Your task to perform on an android device: How much does the new iPad cost? Image 0: 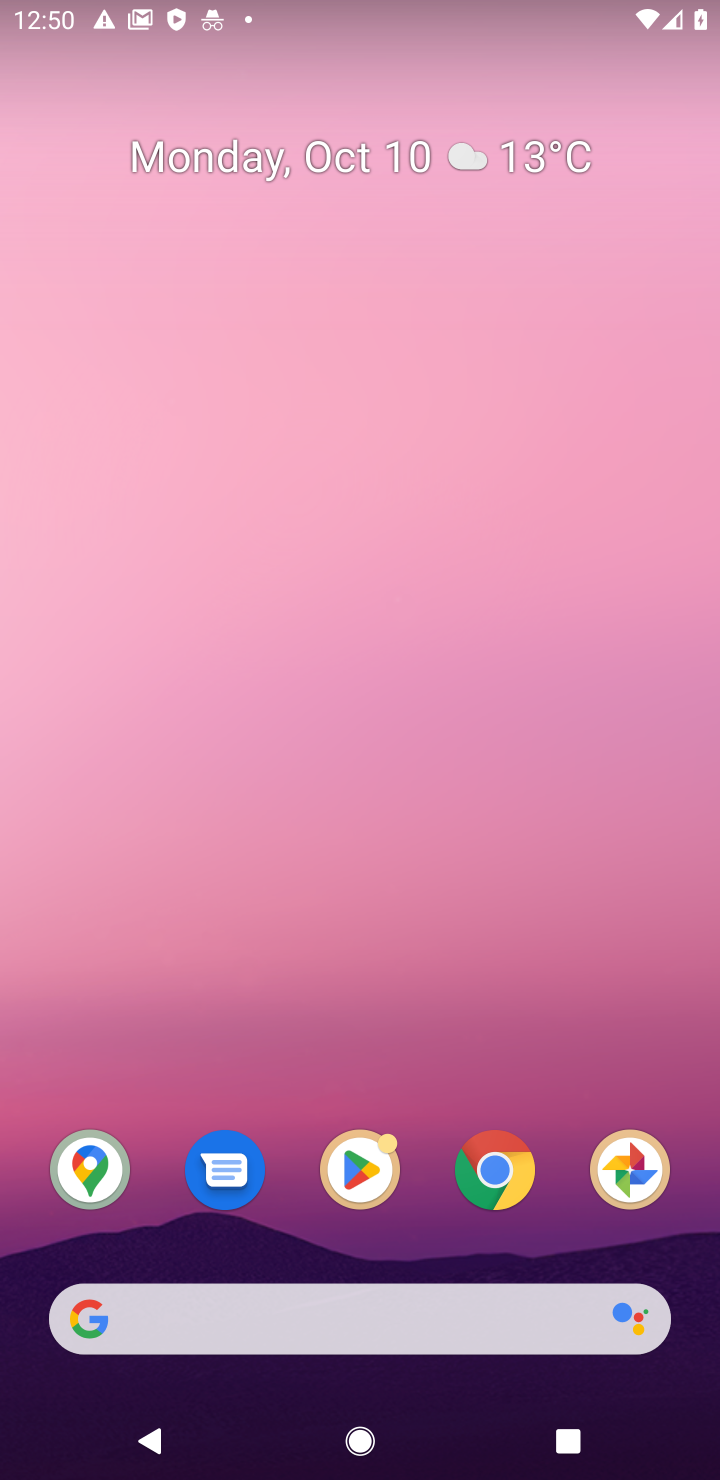
Step 0: click (500, 1175)
Your task to perform on an android device: How much does the new iPad cost? Image 1: 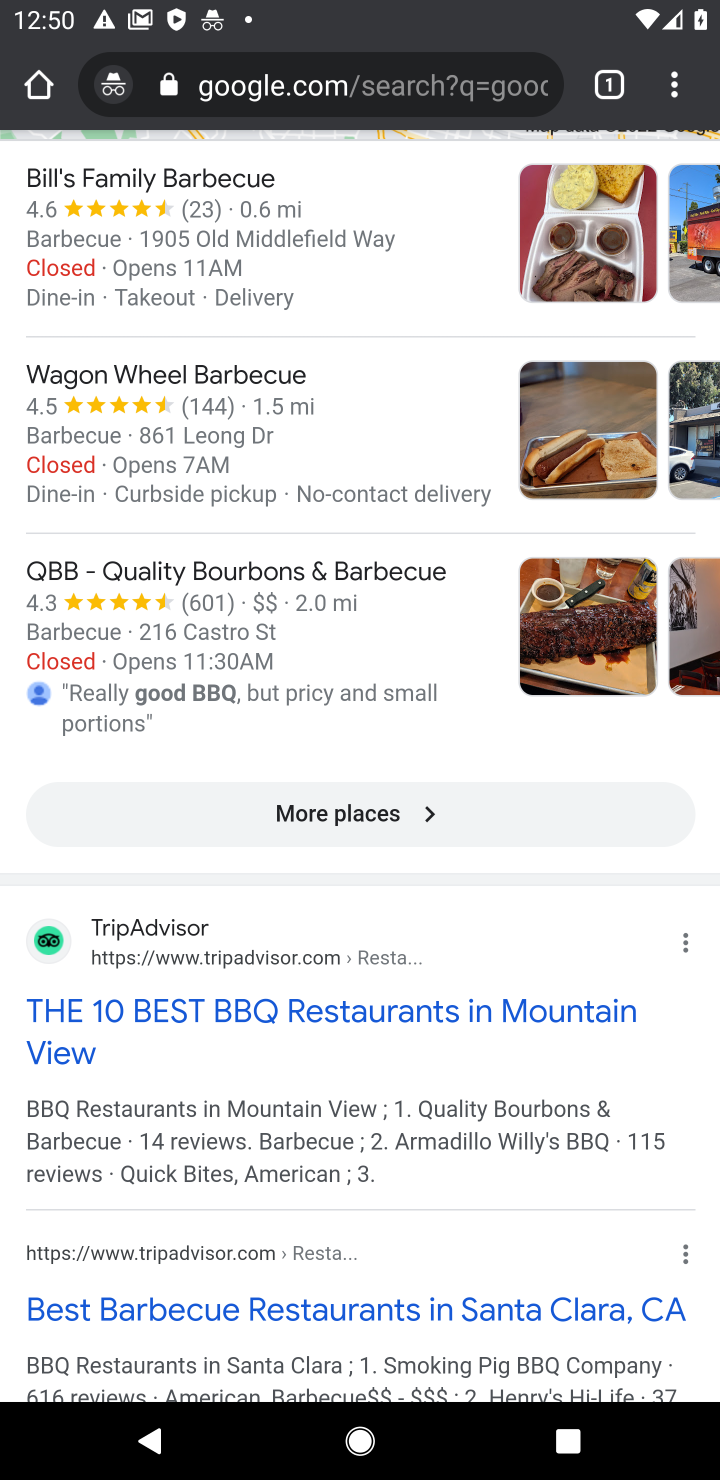
Step 1: click (335, 87)
Your task to perform on an android device: How much does the new iPad cost? Image 2: 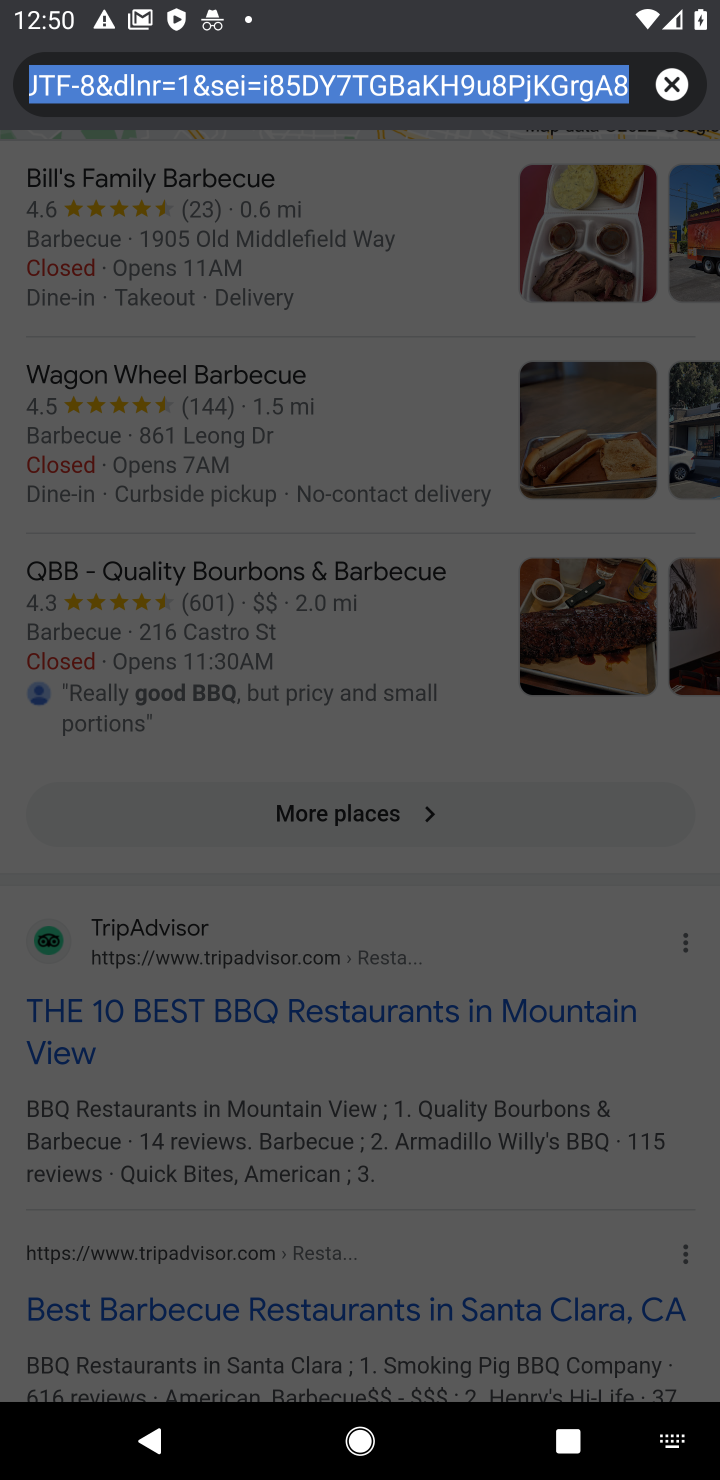
Step 2: click (671, 84)
Your task to perform on an android device: How much does the new iPad cost? Image 3: 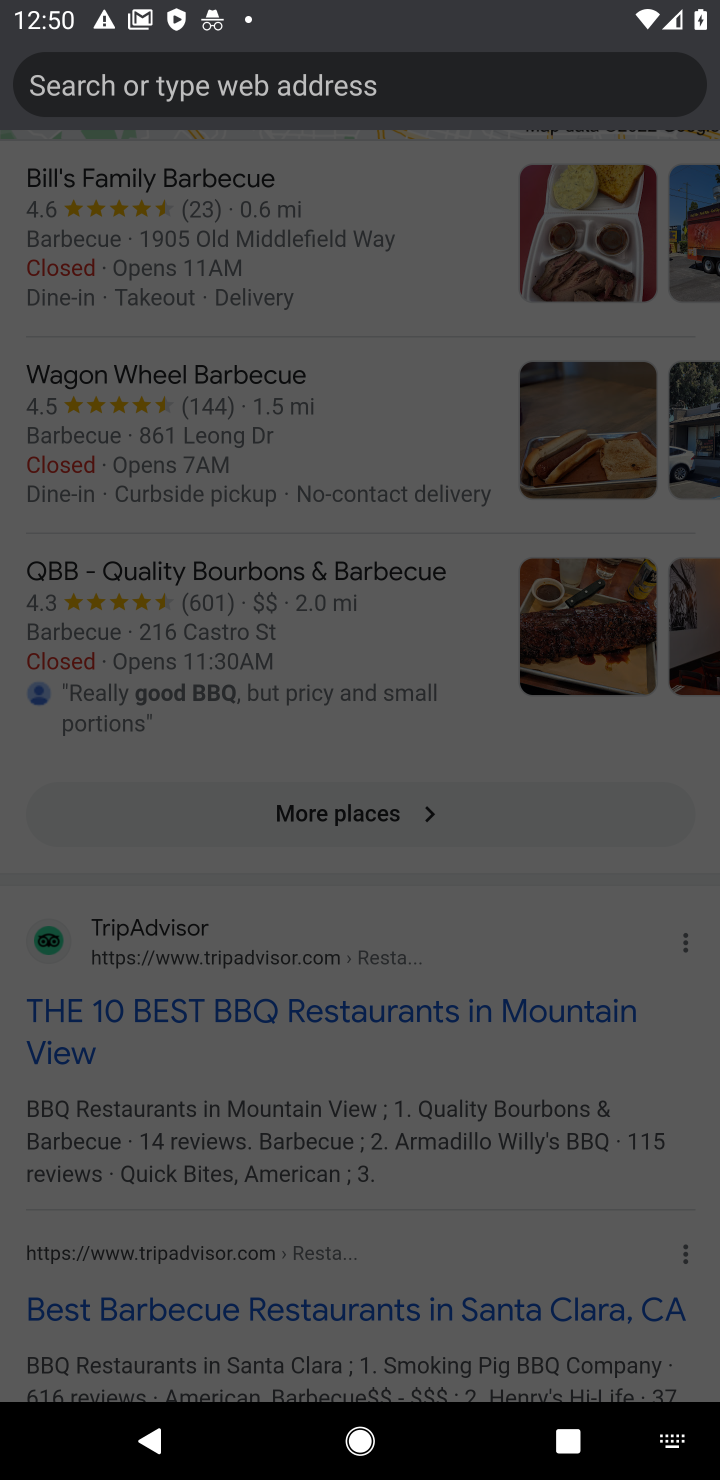
Step 3: click (490, 94)
Your task to perform on an android device: How much does the new iPad cost? Image 4: 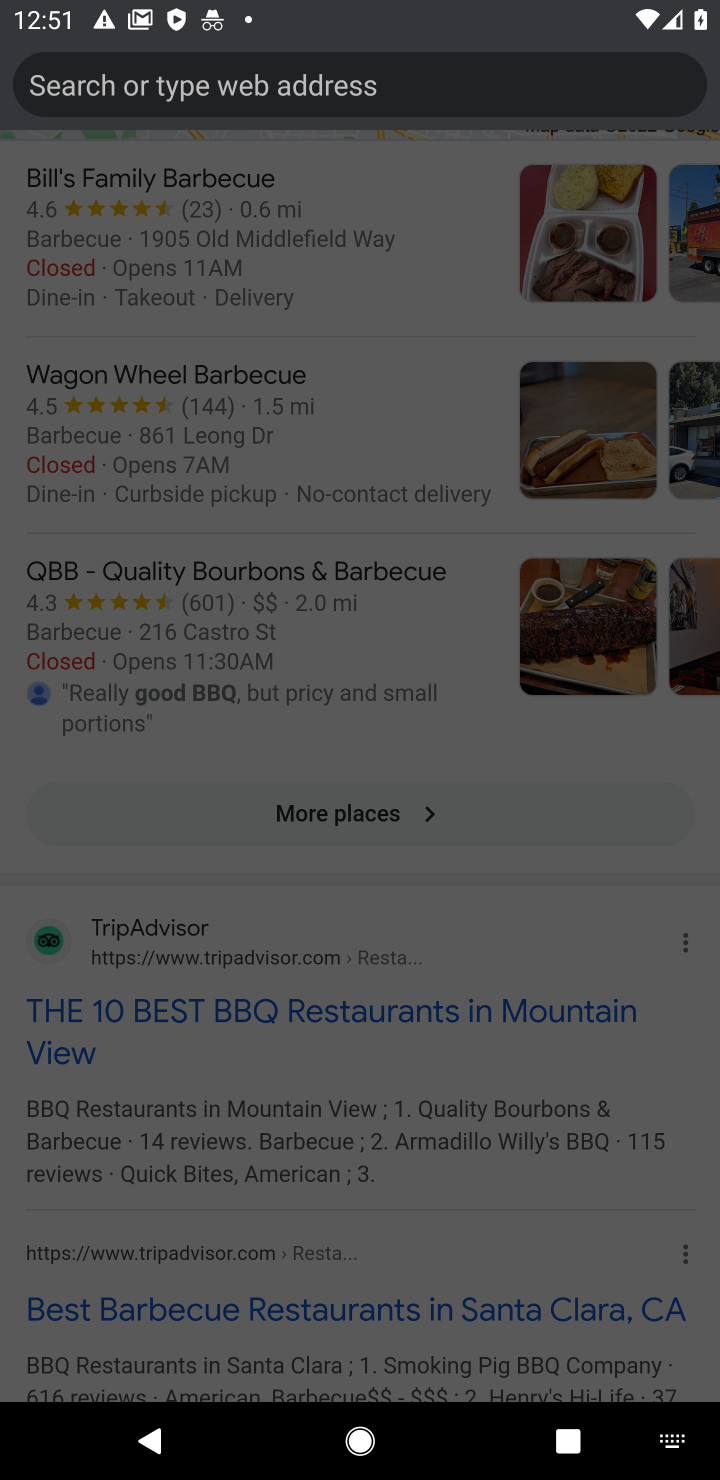
Step 4: type "How much does the new iPad cost"
Your task to perform on an android device: How much does the new iPad cost? Image 5: 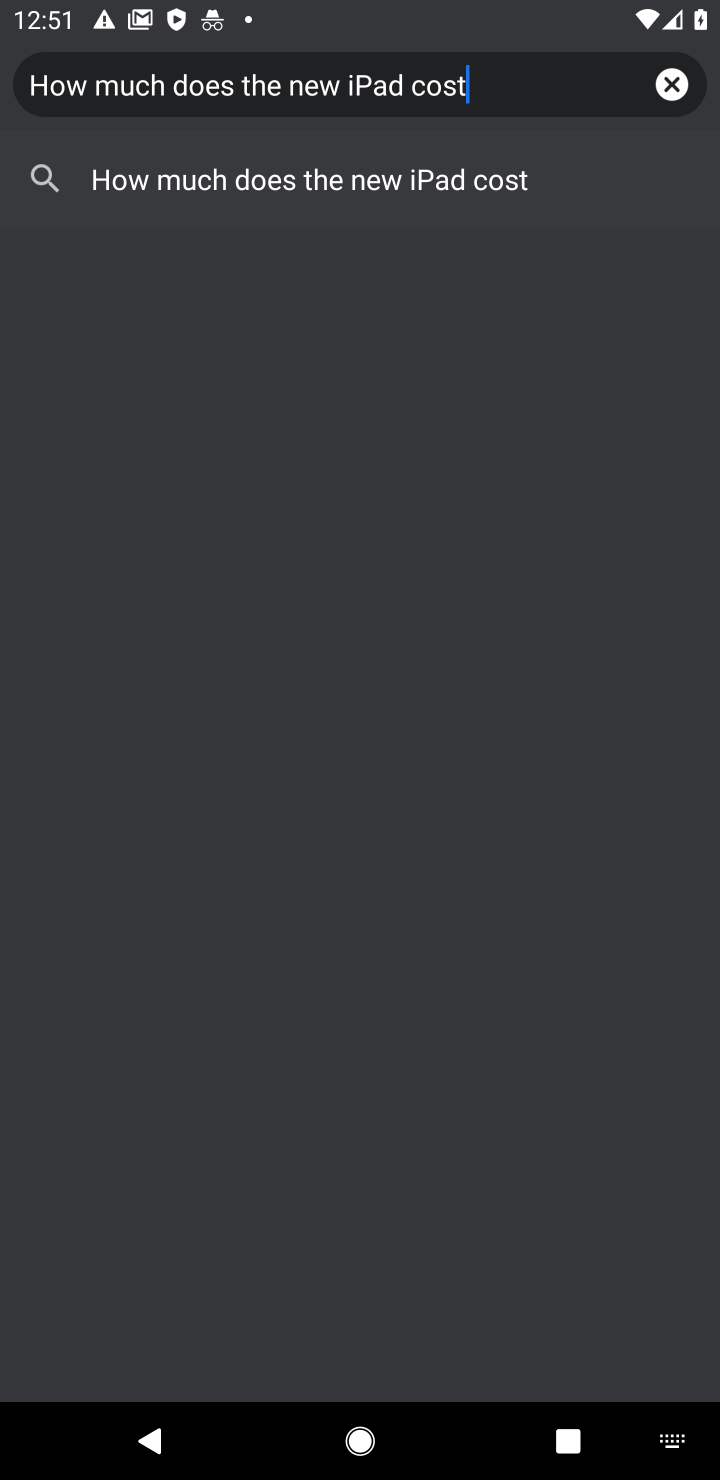
Step 5: click (479, 182)
Your task to perform on an android device: How much does the new iPad cost? Image 6: 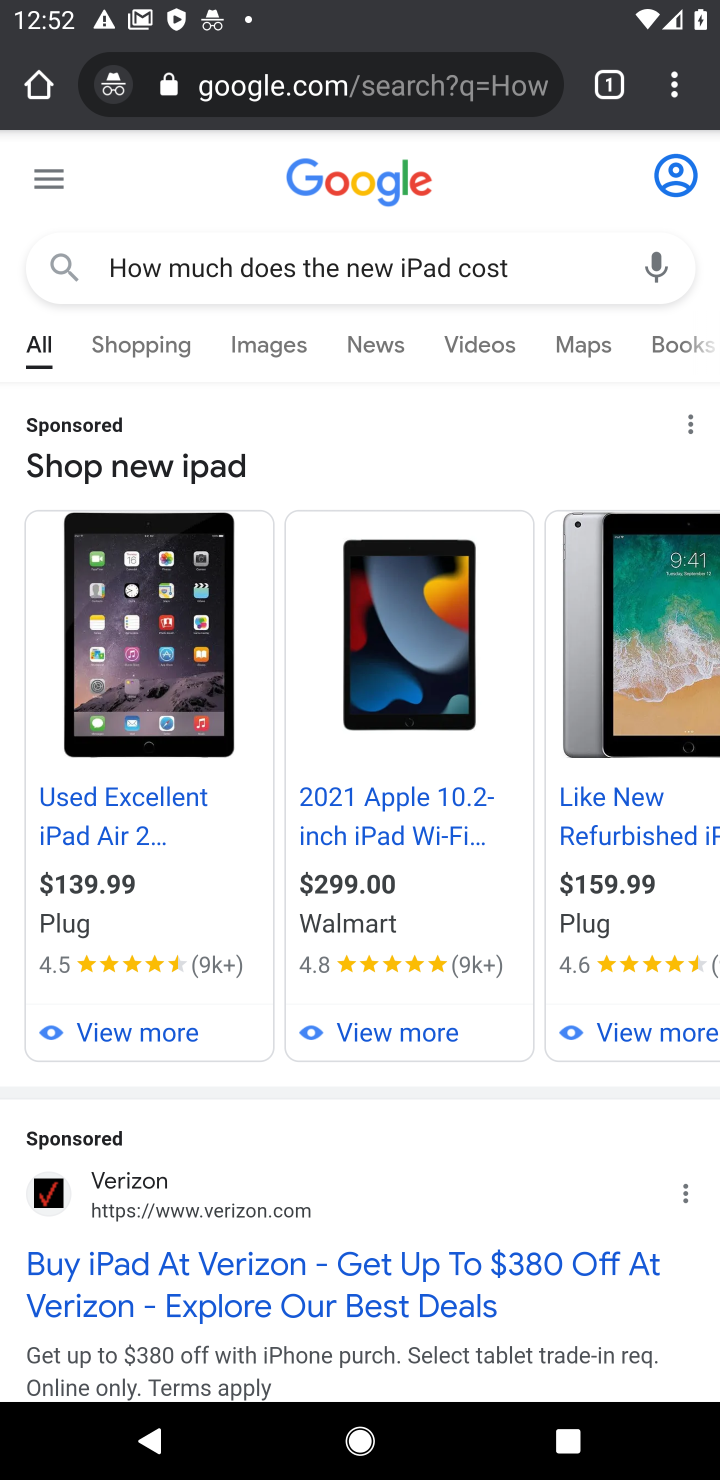
Step 6: task complete